Your task to perform on an android device: turn off translation in the chrome app Image 0: 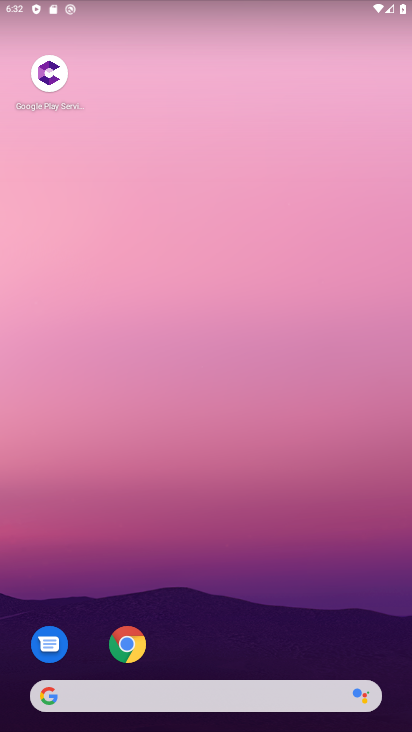
Step 0: click (122, 639)
Your task to perform on an android device: turn off translation in the chrome app Image 1: 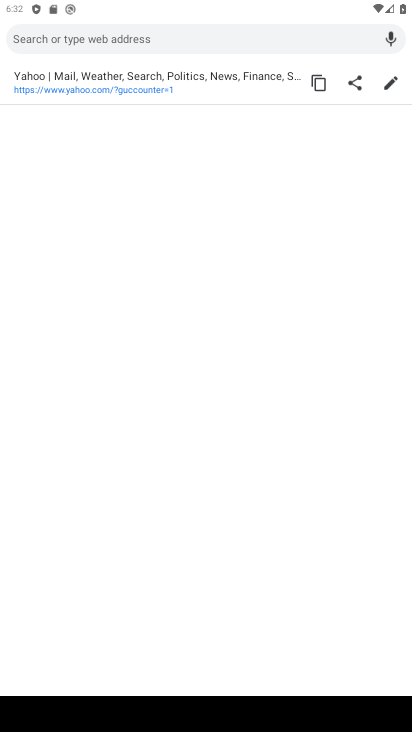
Step 1: press back button
Your task to perform on an android device: turn off translation in the chrome app Image 2: 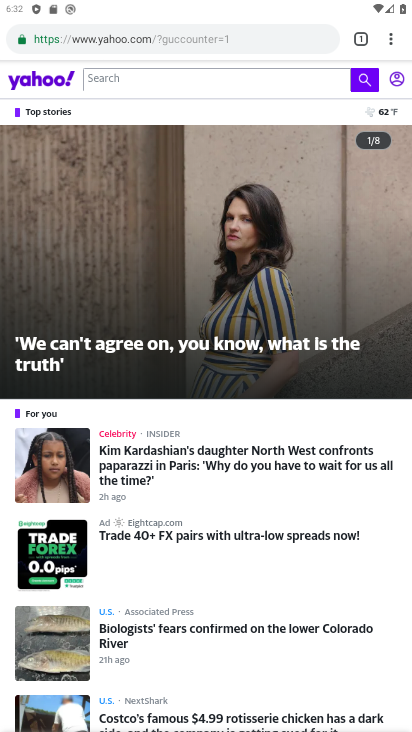
Step 2: click (396, 39)
Your task to perform on an android device: turn off translation in the chrome app Image 3: 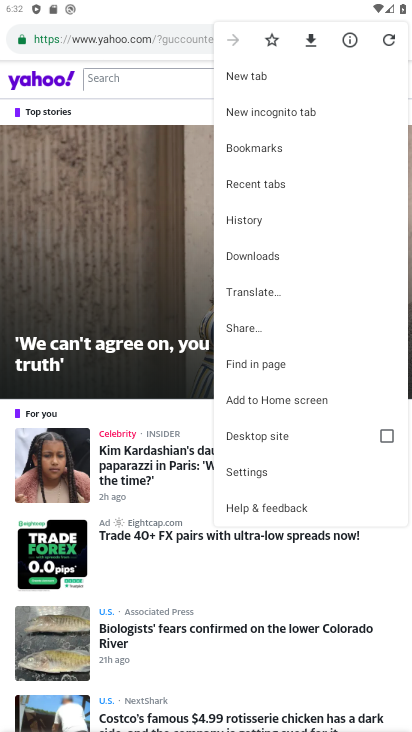
Step 3: click (252, 470)
Your task to perform on an android device: turn off translation in the chrome app Image 4: 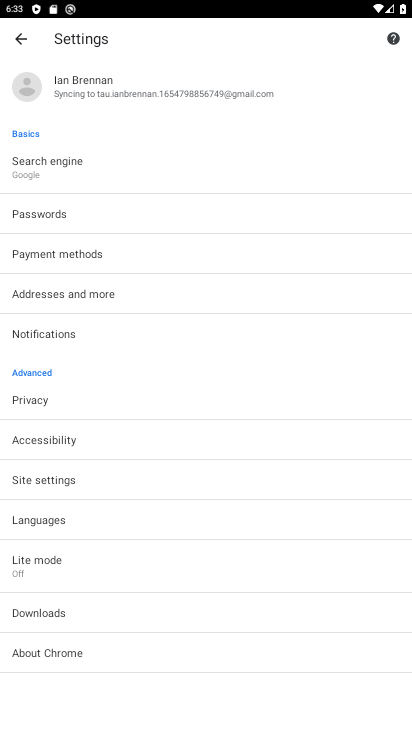
Step 4: click (53, 514)
Your task to perform on an android device: turn off translation in the chrome app Image 5: 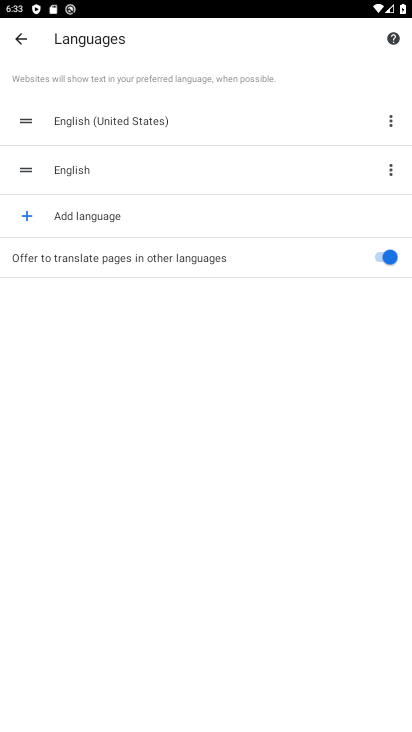
Step 5: click (388, 256)
Your task to perform on an android device: turn off translation in the chrome app Image 6: 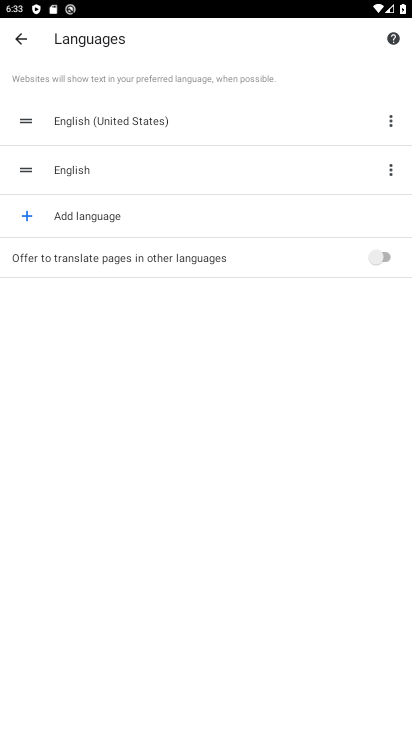
Step 6: task complete